Your task to perform on an android device: turn off picture-in-picture Image 0: 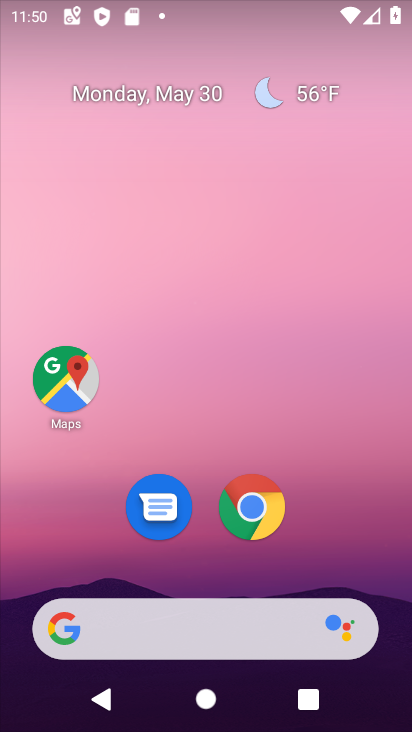
Step 0: click (250, 493)
Your task to perform on an android device: turn off picture-in-picture Image 1: 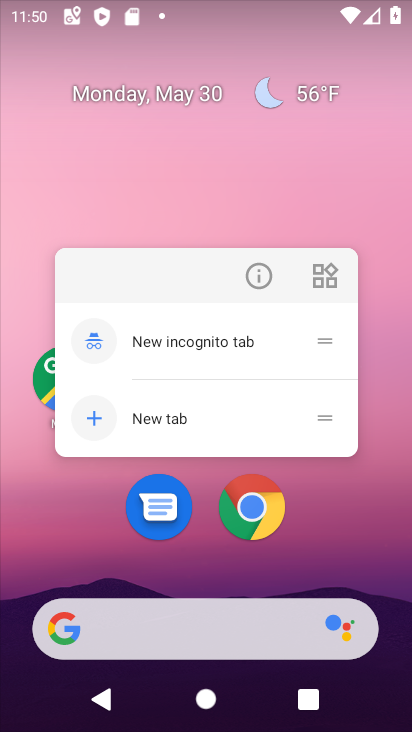
Step 1: click (260, 268)
Your task to perform on an android device: turn off picture-in-picture Image 2: 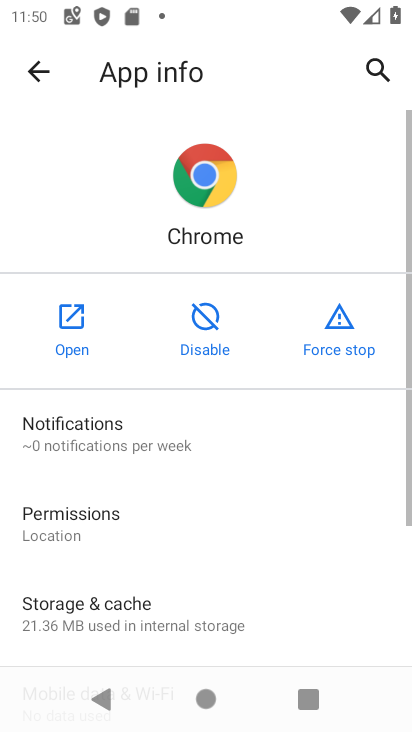
Step 2: drag from (313, 628) to (312, 317)
Your task to perform on an android device: turn off picture-in-picture Image 3: 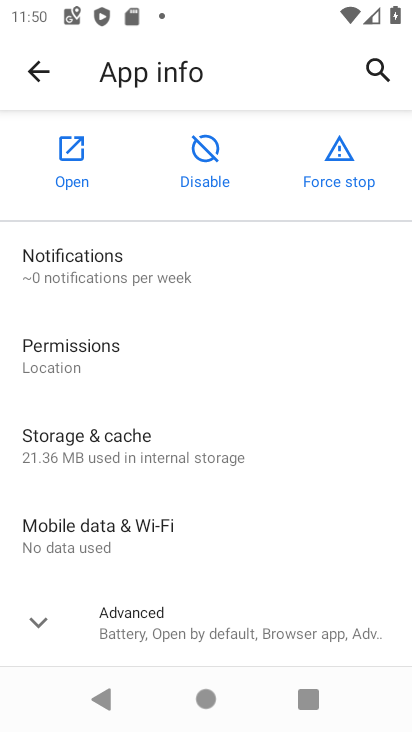
Step 3: click (284, 619)
Your task to perform on an android device: turn off picture-in-picture Image 4: 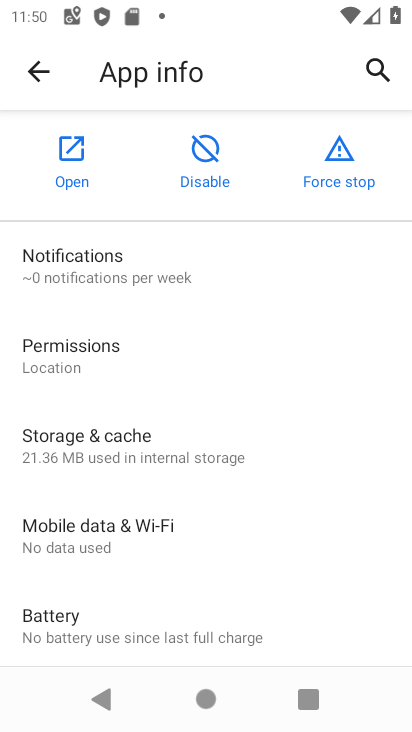
Step 4: drag from (370, 623) to (307, 90)
Your task to perform on an android device: turn off picture-in-picture Image 5: 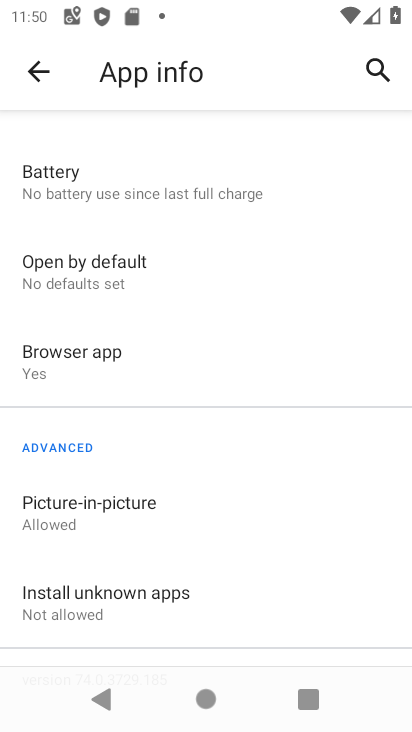
Step 5: click (85, 515)
Your task to perform on an android device: turn off picture-in-picture Image 6: 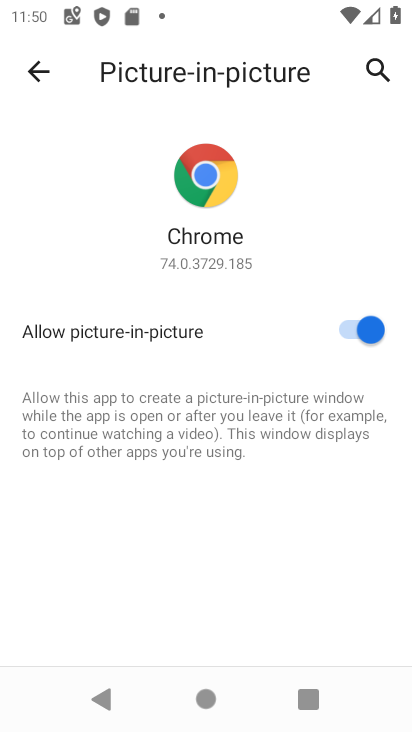
Step 6: click (351, 322)
Your task to perform on an android device: turn off picture-in-picture Image 7: 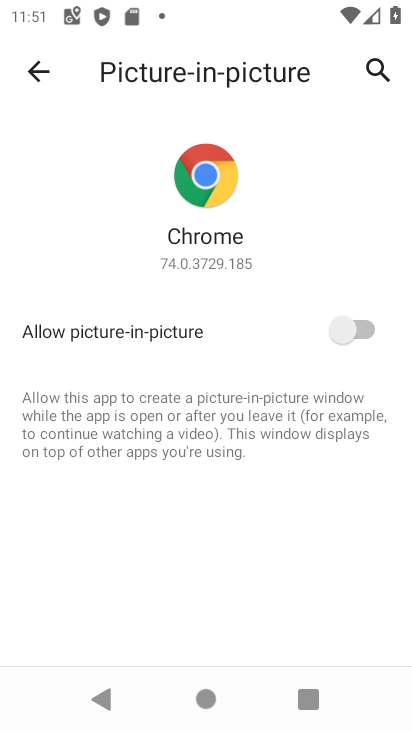
Step 7: task complete